Your task to perform on an android device: turn on bluetooth scan Image 0: 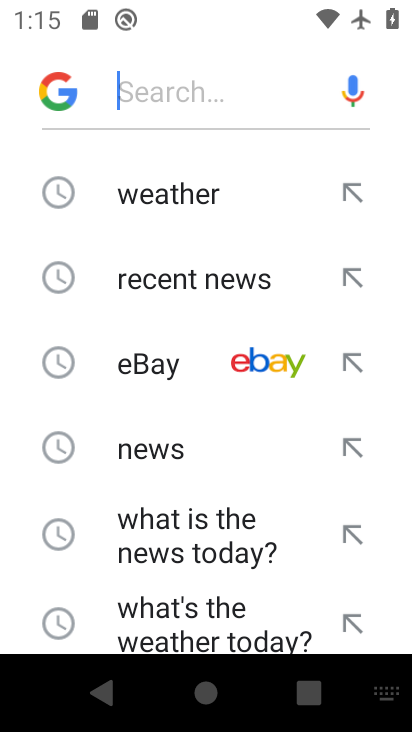
Step 0: press home button
Your task to perform on an android device: turn on bluetooth scan Image 1: 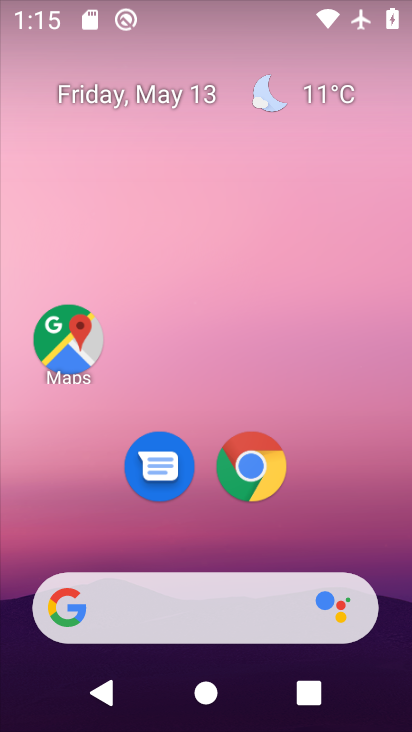
Step 1: drag from (209, 543) to (225, 31)
Your task to perform on an android device: turn on bluetooth scan Image 2: 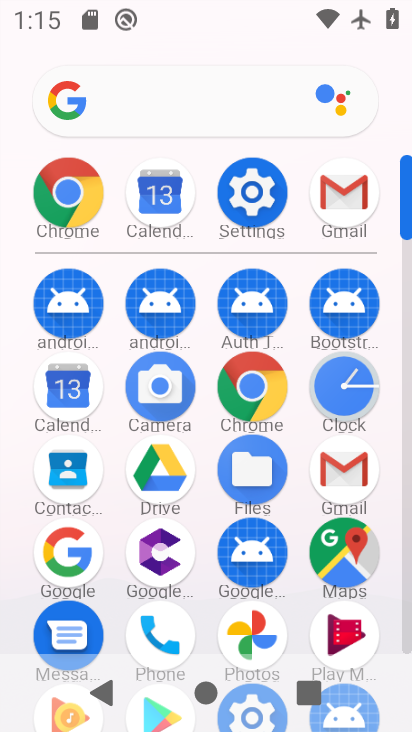
Step 2: click (249, 193)
Your task to perform on an android device: turn on bluetooth scan Image 3: 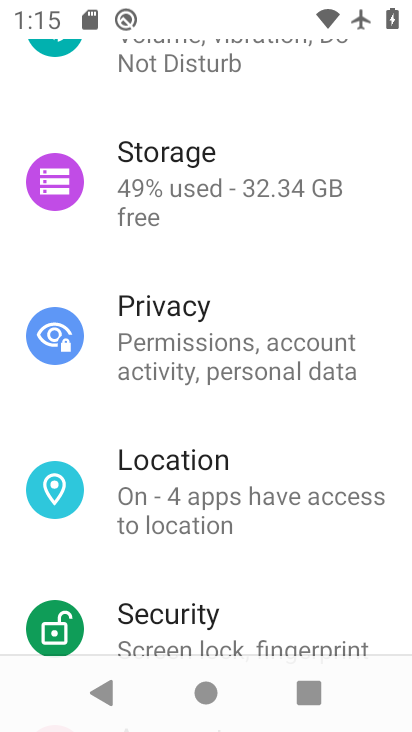
Step 3: click (235, 522)
Your task to perform on an android device: turn on bluetooth scan Image 4: 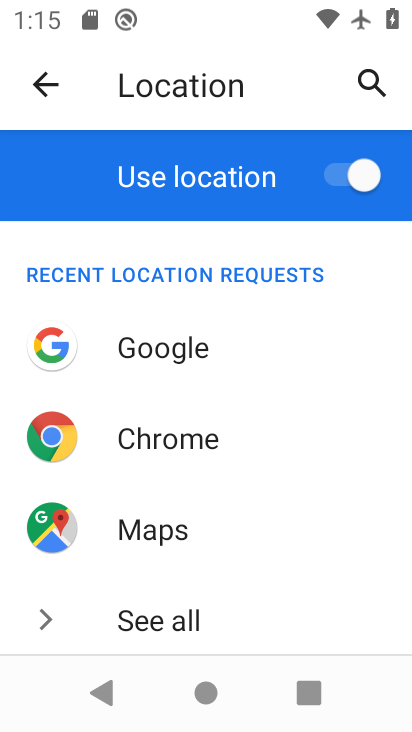
Step 4: drag from (179, 589) to (192, 200)
Your task to perform on an android device: turn on bluetooth scan Image 5: 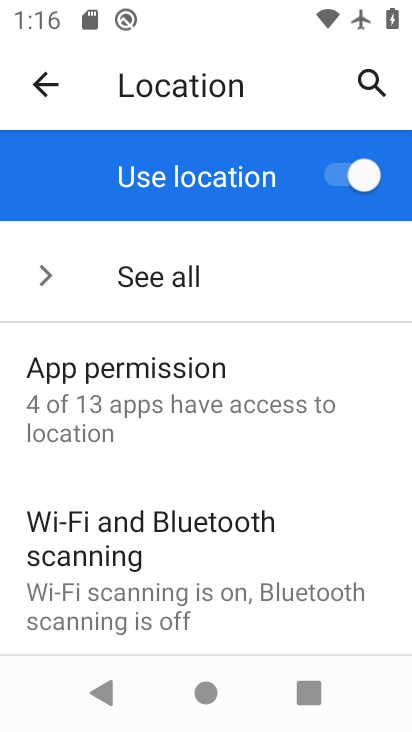
Step 5: click (128, 609)
Your task to perform on an android device: turn on bluetooth scan Image 6: 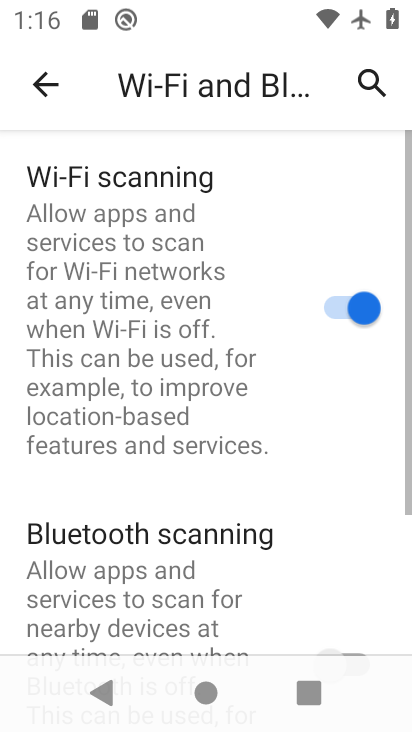
Step 6: drag from (206, 605) to (202, 317)
Your task to perform on an android device: turn on bluetooth scan Image 7: 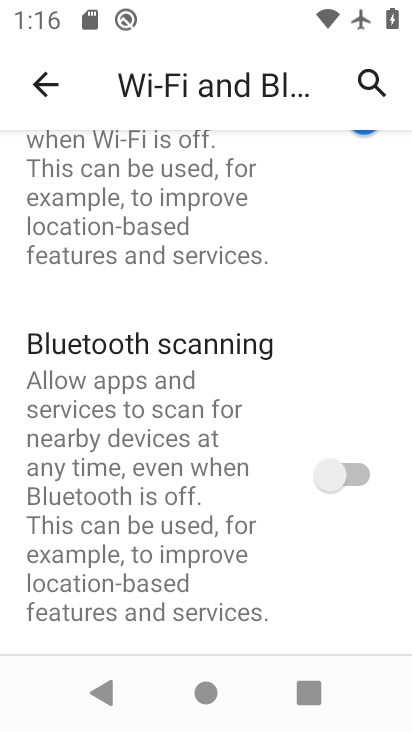
Step 7: click (323, 482)
Your task to perform on an android device: turn on bluetooth scan Image 8: 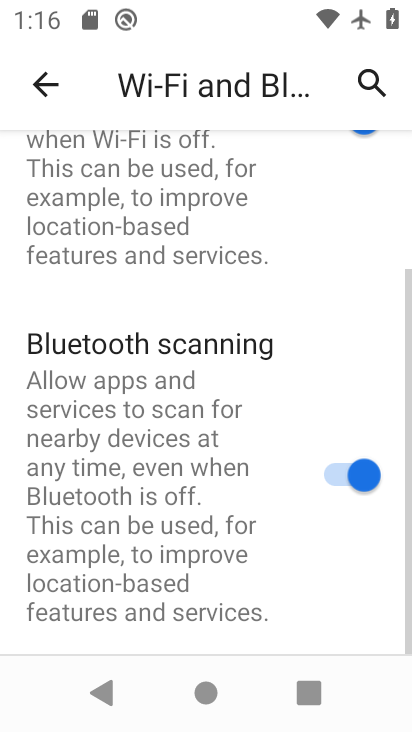
Step 8: task complete